Your task to perform on an android device: Open Youtube and go to "Your channel" Image 0: 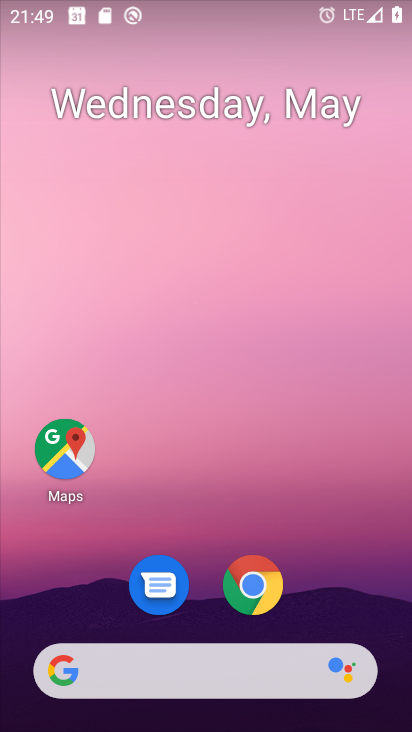
Step 0: drag from (317, 573) to (250, 30)
Your task to perform on an android device: Open Youtube and go to "Your channel" Image 1: 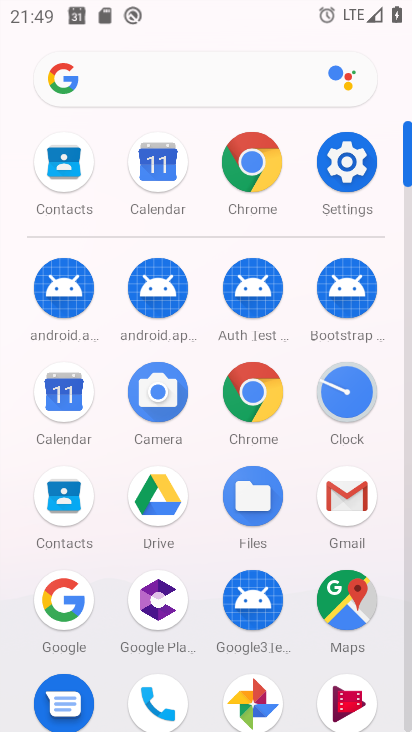
Step 1: drag from (203, 466) to (207, 122)
Your task to perform on an android device: Open Youtube and go to "Your channel" Image 2: 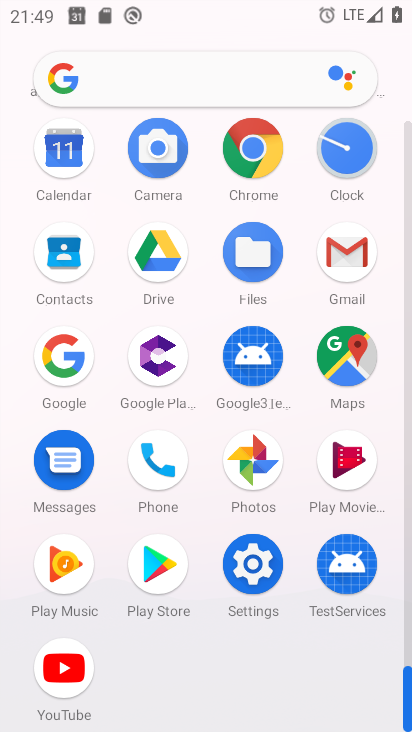
Step 2: click (74, 667)
Your task to perform on an android device: Open Youtube and go to "Your channel" Image 3: 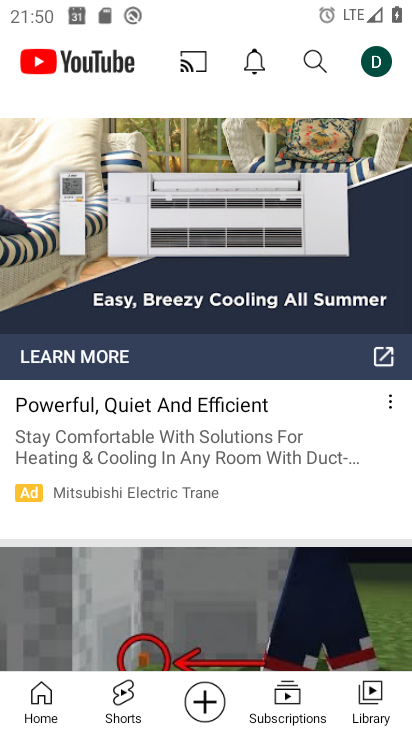
Step 3: click (367, 53)
Your task to perform on an android device: Open Youtube and go to "Your channel" Image 4: 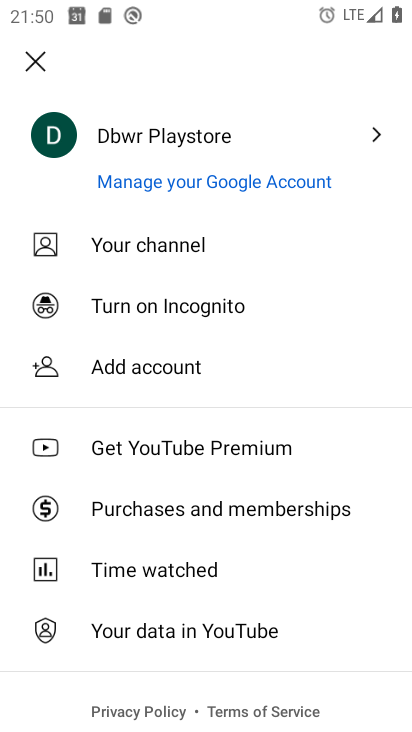
Step 4: click (175, 247)
Your task to perform on an android device: Open Youtube and go to "Your channel" Image 5: 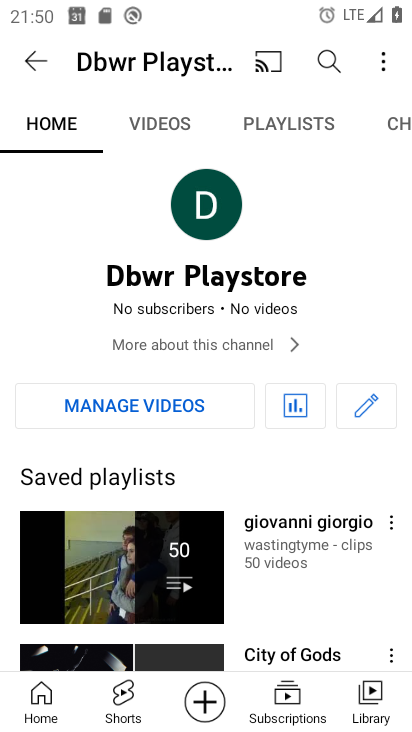
Step 5: task complete